Your task to perform on an android device: Open Android settings Image 0: 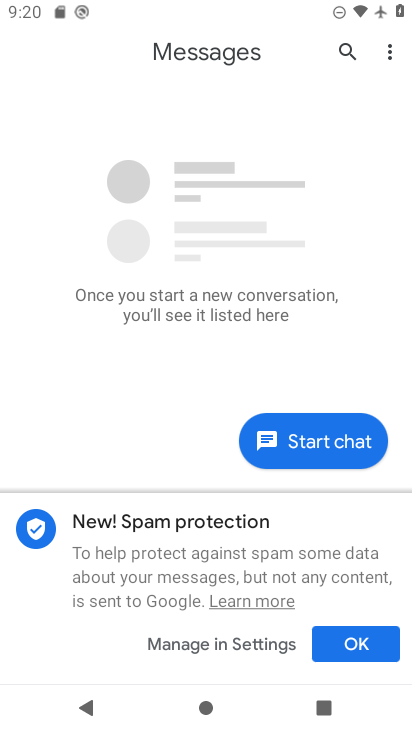
Step 0: press home button
Your task to perform on an android device: Open Android settings Image 1: 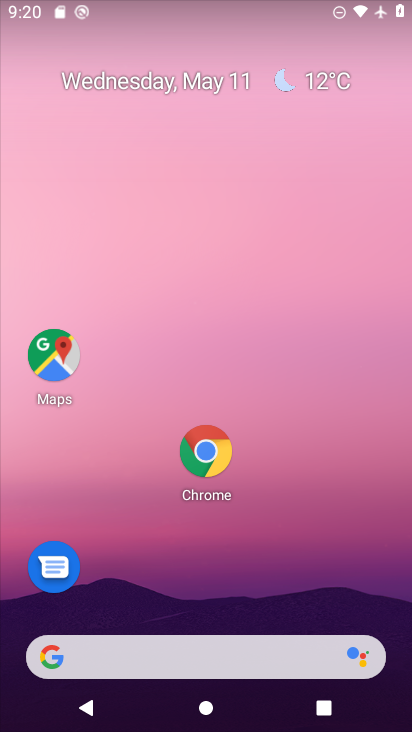
Step 1: drag from (144, 653) to (329, 116)
Your task to perform on an android device: Open Android settings Image 2: 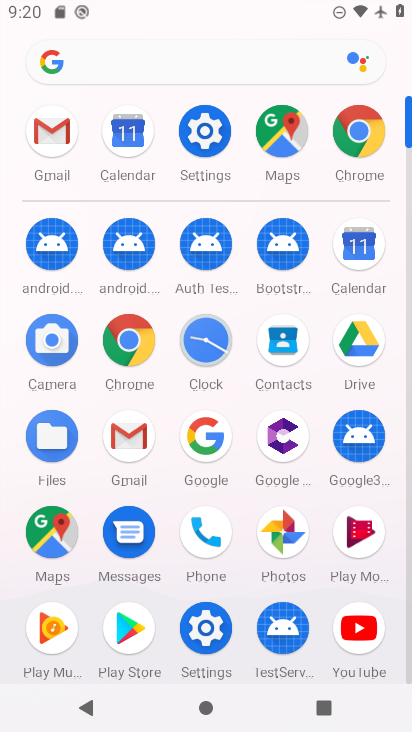
Step 2: click (201, 120)
Your task to perform on an android device: Open Android settings Image 3: 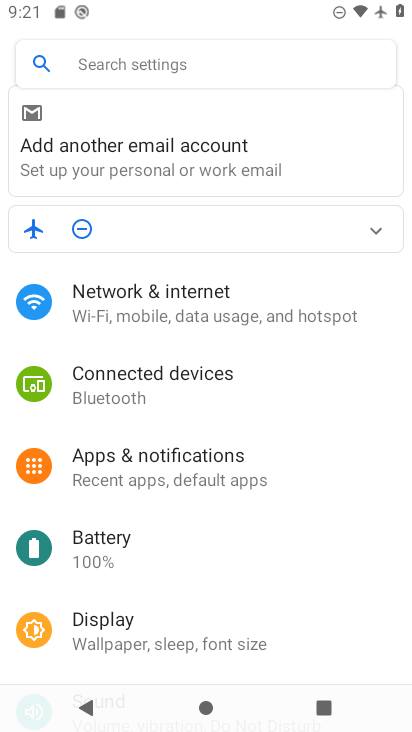
Step 3: task complete